Your task to perform on an android device: Check the news Image 0: 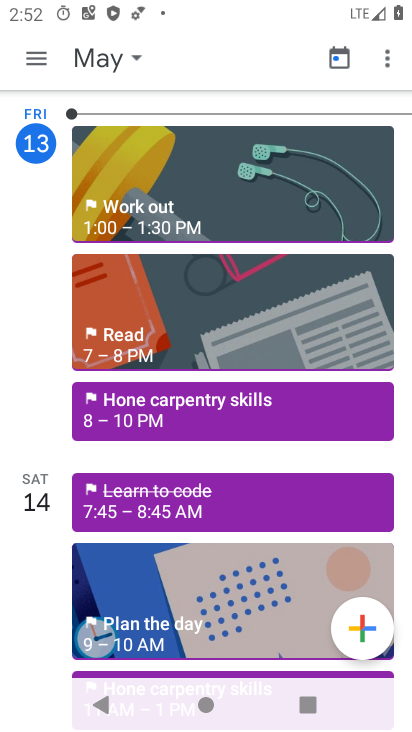
Step 0: press home button
Your task to perform on an android device: Check the news Image 1: 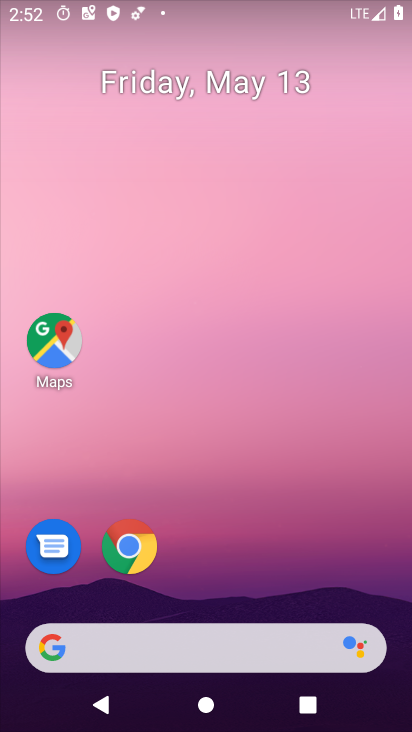
Step 1: drag from (172, 427) to (153, 199)
Your task to perform on an android device: Check the news Image 2: 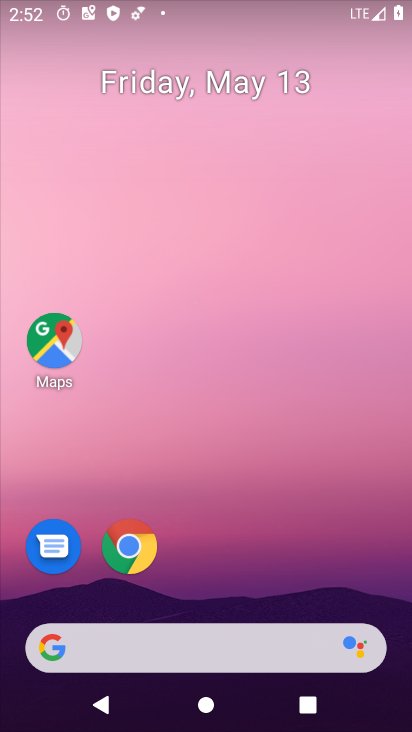
Step 2: drag from (174, 591) to (187, 112)
Your task to perform on an android device: Check the news Image 3: 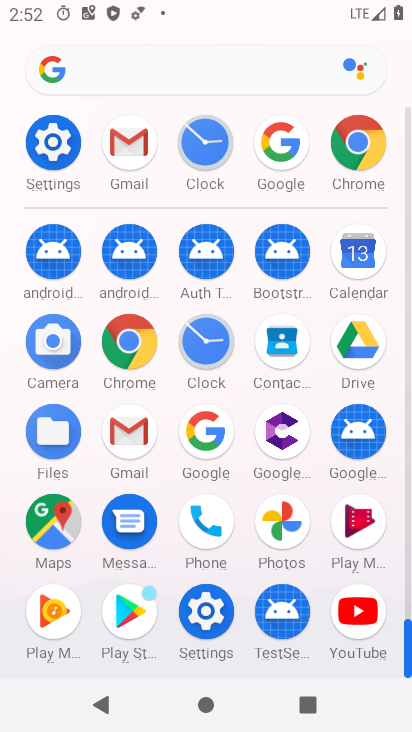
Step 3: click (221, 443)
Your task to perform on an android device: Check the news Image 4: 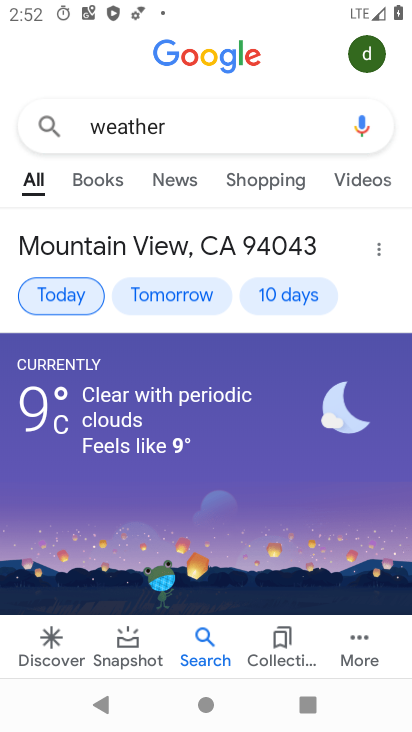
Step 4: click (207, 134)
Your task to perform on an android device: Check the news Image 5: 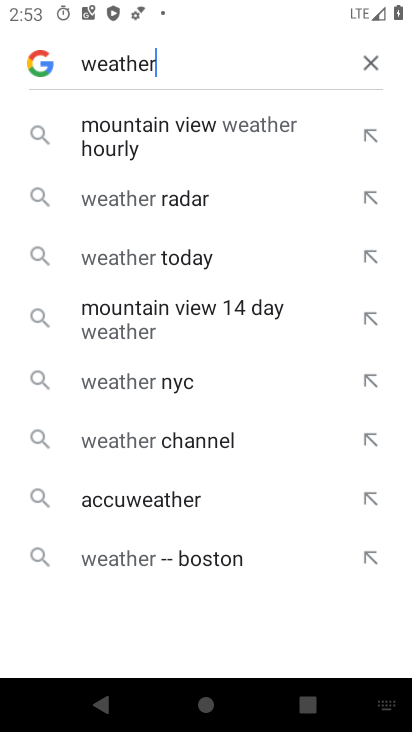
Step 5: click (378, 70)
Your task to perform on an android device: Check the news Image 6: 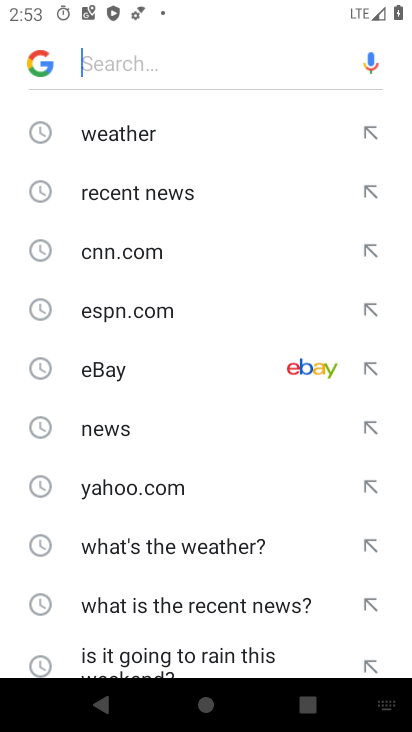
Step 6: click (199, 425)
Your task to perform on an android device: Check the news Image 7: 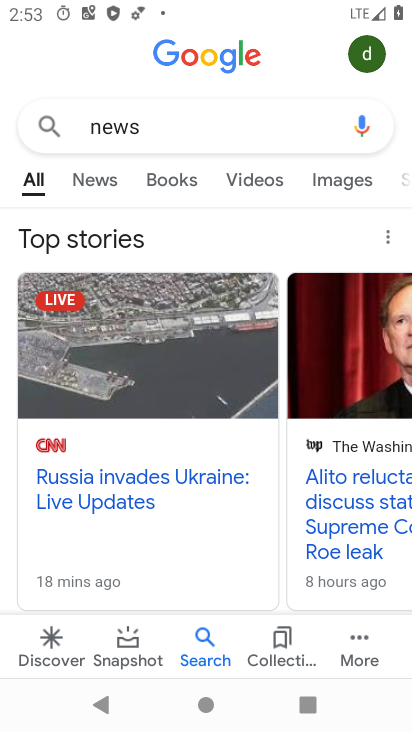
Step 7: task complete